Your task to perform on an android device: Go to internet settings Image 0: 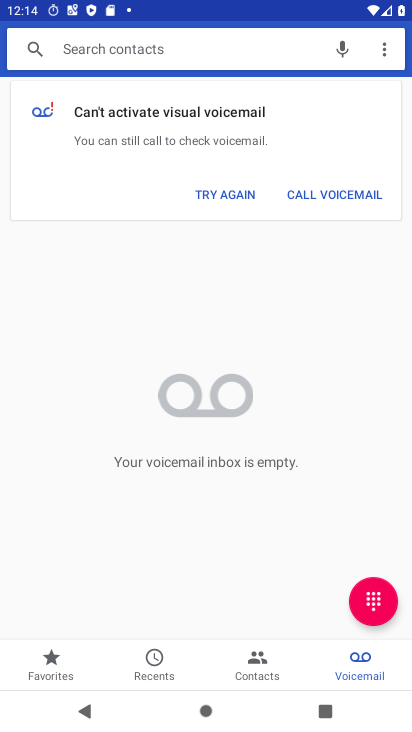
Step 0: press home button
Your task to perform on an android device: Go to internet settings Image 1: 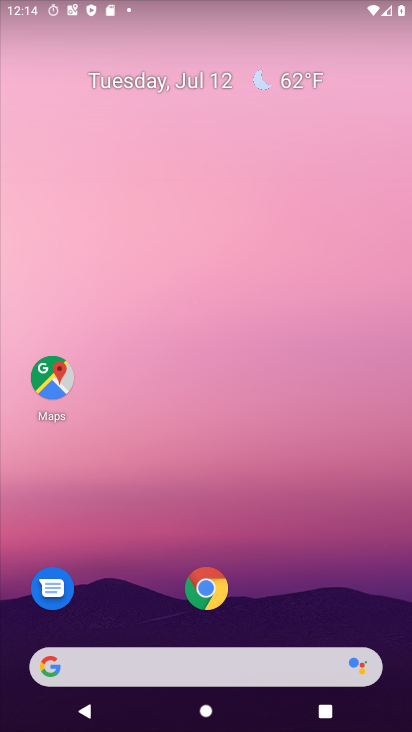
Step 1: drag from (164, 596) to (149, 36)
Your task to perform on an android device: Go to internet settings Image 2: 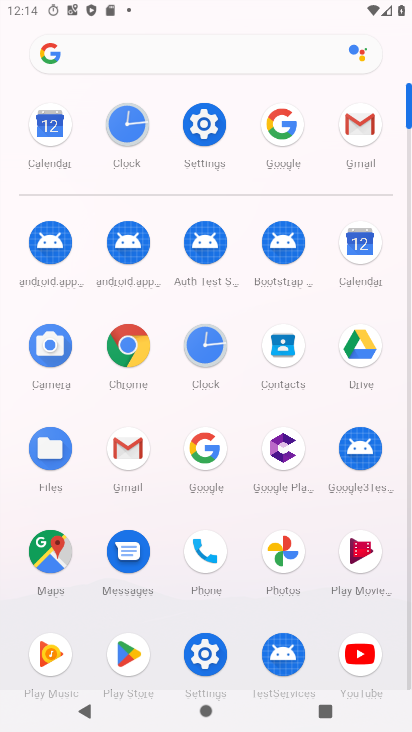
Step 2: click (201, 130)
Your task to perform on an android device: Go to internet settings Image 3: 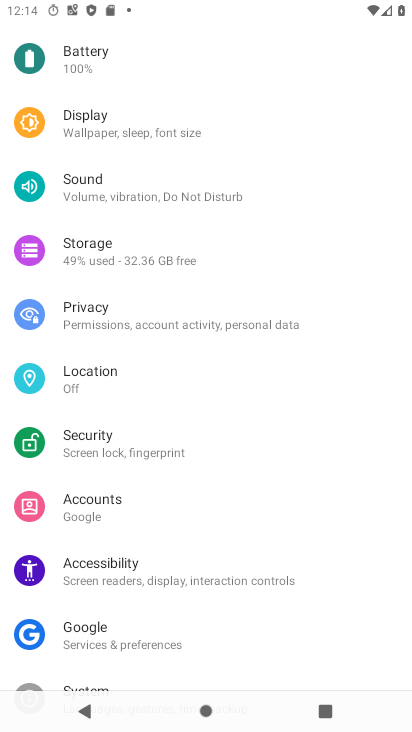
Step 3: drag from (189, 304) to (187, 568)
Your task to perform on an android device: Go to internet settings Image 4: 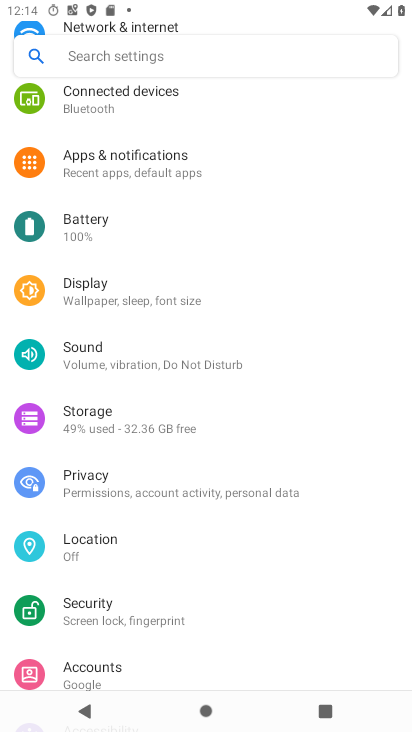
Step 4: drag from (183, 214) to (183, 511)
Your task to perform on an android device: Go to internet settings Image 5: 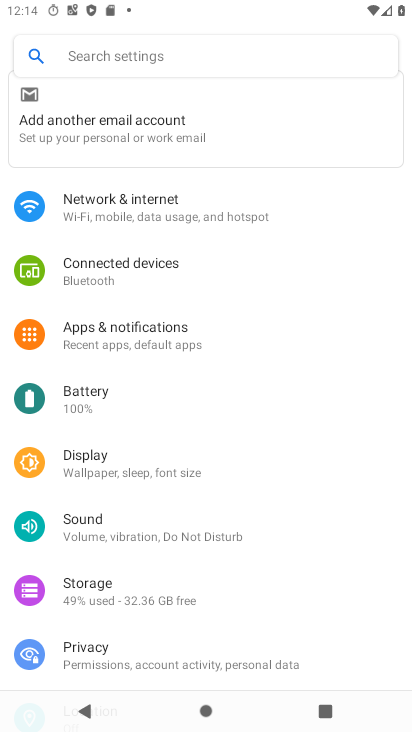
Step 5: click (124, 204)
Your task to perform on an android device: Go to internet settings Image 6: 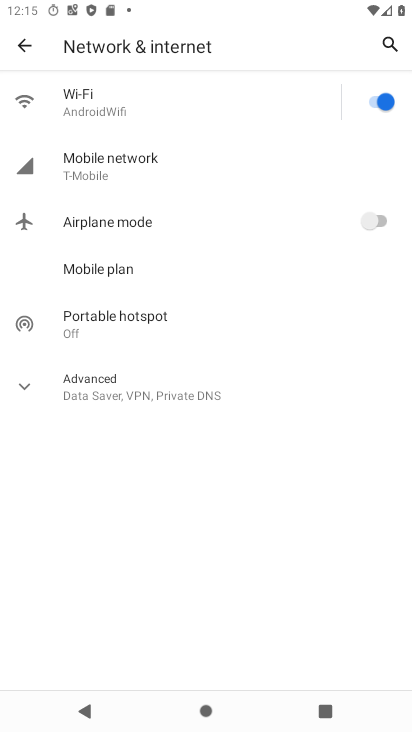
Step 6: task complete